Your task to perform on an android device: toggle airplane mode Image 0: 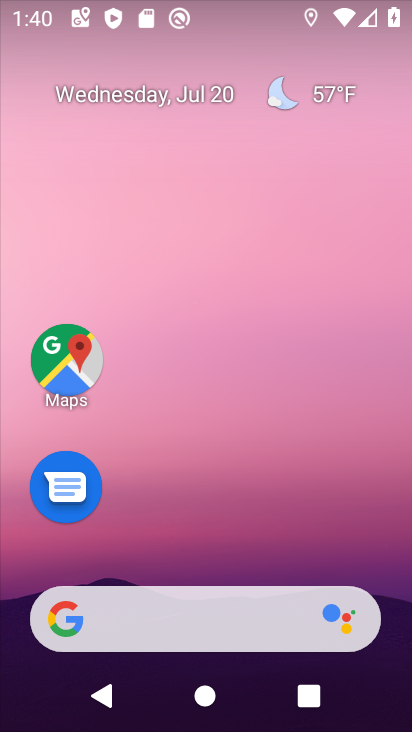
Step 0: drag from (312, 12) to (201, 565)
Your task to perform on an android device: toggle airplane mode Image 1: 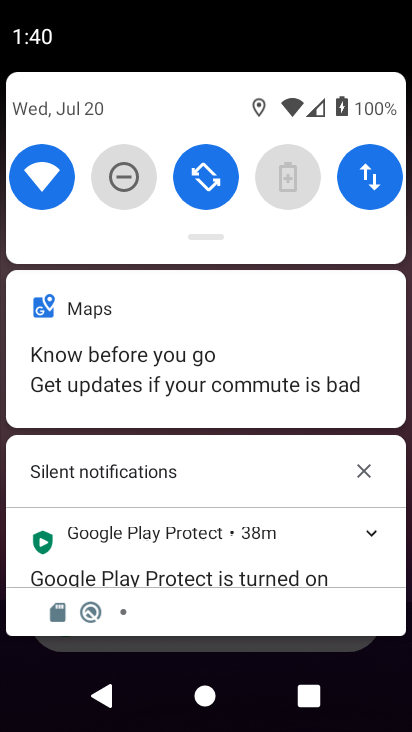
Step 1: drag from (211, 234) to (192, 731)
Your task to perform on an android device: toggle airplane mode Image 2: 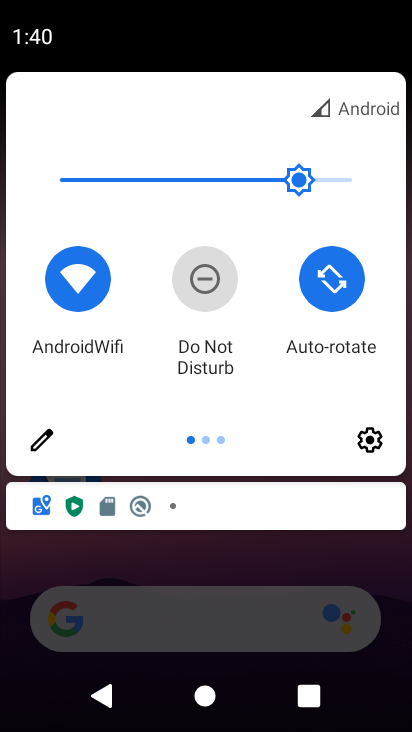
Step 2: drag from (369, 292) to (1, 307)
Your task to perform on an android device: toggle airplane mode Image 3: 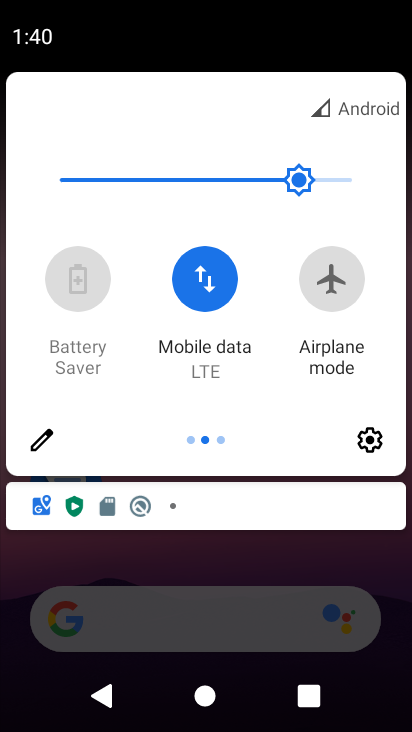
Step 3: click (335, 285)
Your task to perform on an android device: toggle airplane mode Image 4: 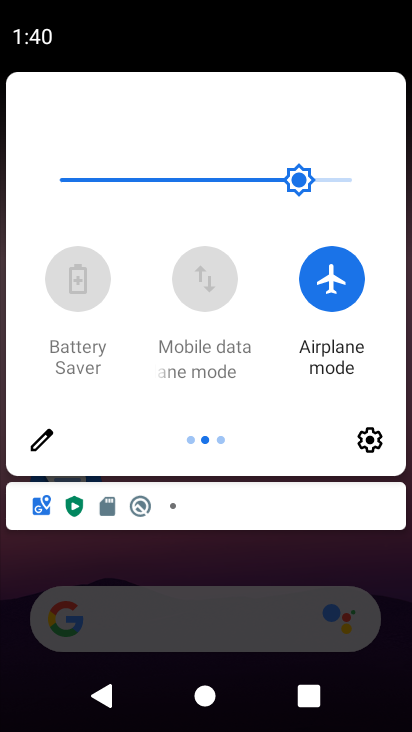
Step 4: task complete